Your task to perform on an android device: toggle improve location accuracy Image 0: 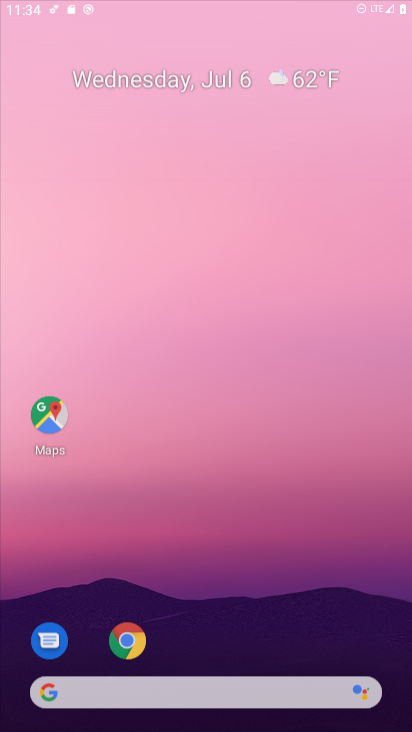
Step 0: press home button
Your task to perform on an android device: toggle improve location accuracy Image 1: 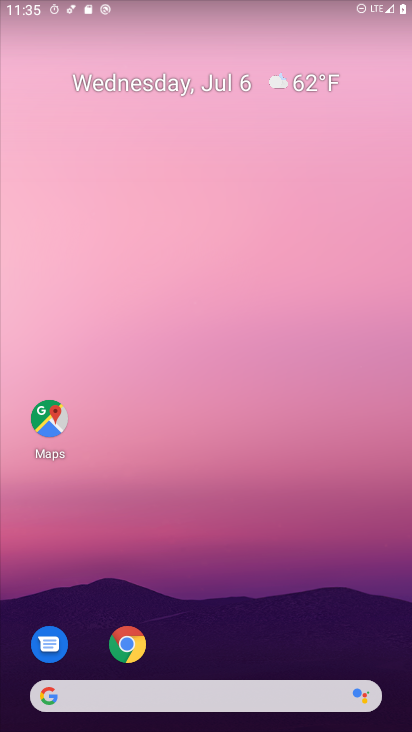
Step 1: press home button
Your task to perform on an android device: toggle improve location accuracy Image 2: 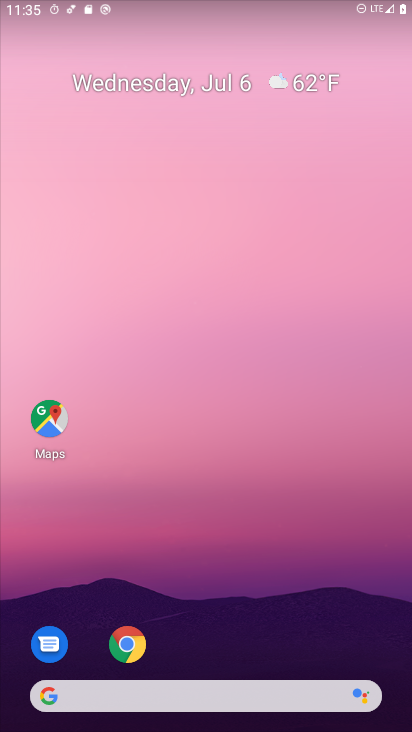
Step 2: drag from (274, 590) to (309, 62)
Your task to perform on an android device: toggle improve location accuracy Image 3: 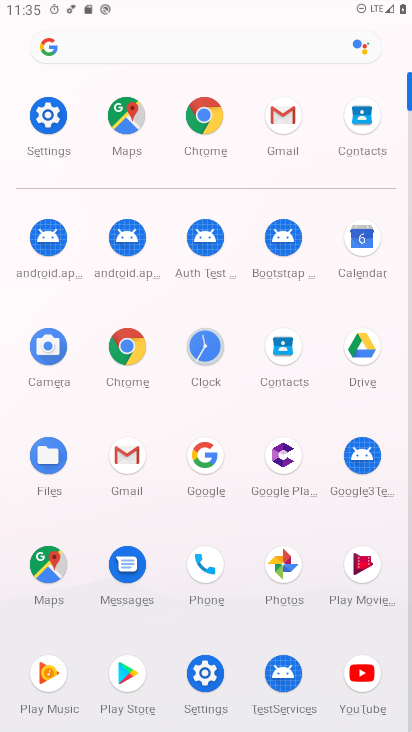
Step 3: click (48, 129)
Your task to perform on an android device: toggle improve location accuracy Image 4: 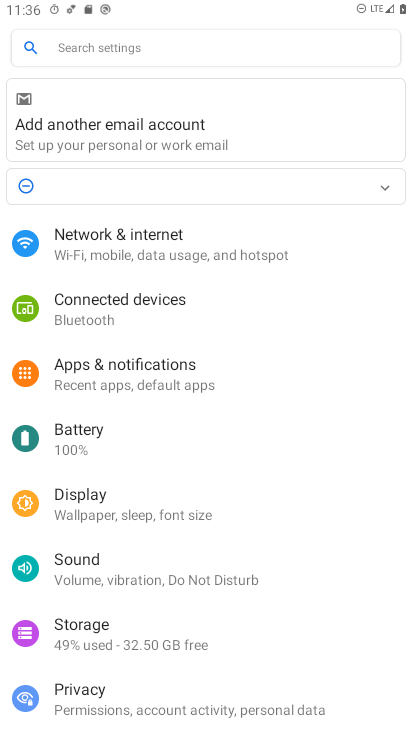
Step 4: drag from (278, 642) to (213, 0)
Your task to perform on an android device: toggle improve location accuracy Image 5: 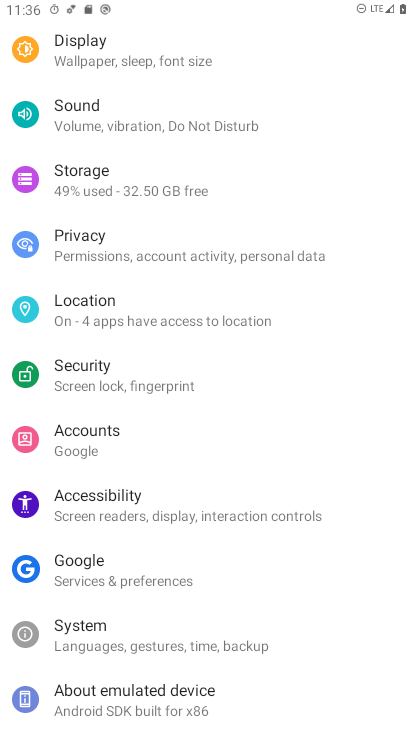
Step 5: click (105, 305)
Your task to perform on an android device: toggle improve location accuracy Image 6: 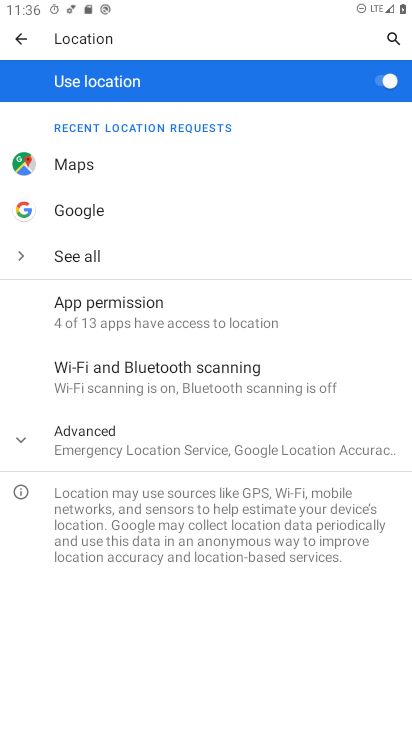
Step 6: click (75, 440)
Your task to perform on an android device: toggle improve location accuracy Image 7: 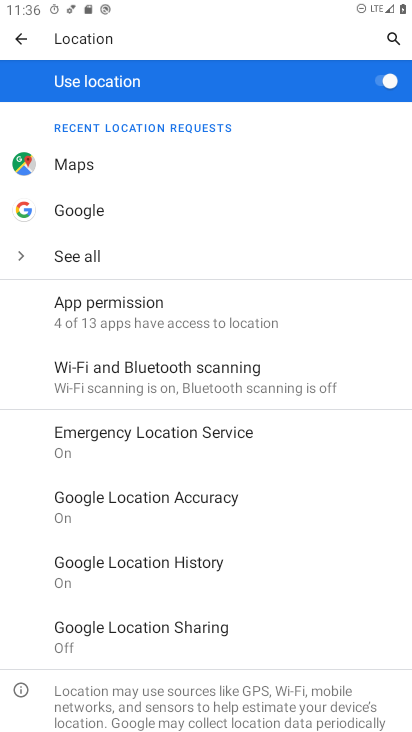
Step 7: click (165, 497)
Your task to perform on an android device: toggle improve location accuracy Image 8: 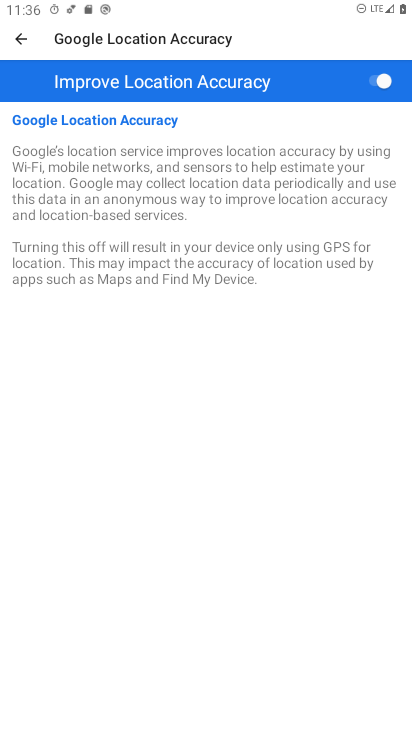
Step 8: click (383, 79)
Your task to perform on an android device: toggle improve location accuracy Image 9: 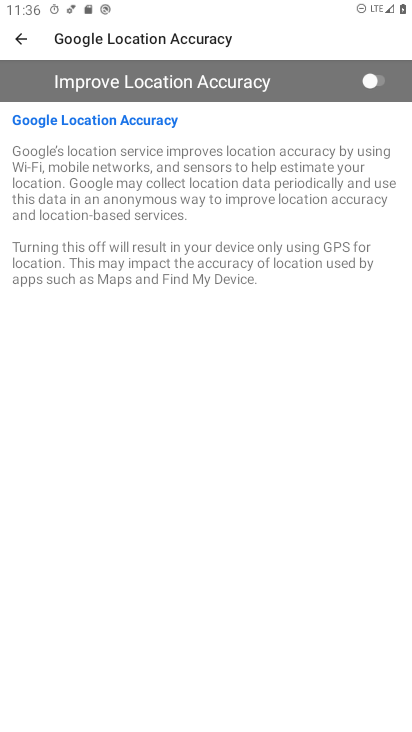
Step 9: task complete